Your task to perform on an android device: Open sound settings Image 0: 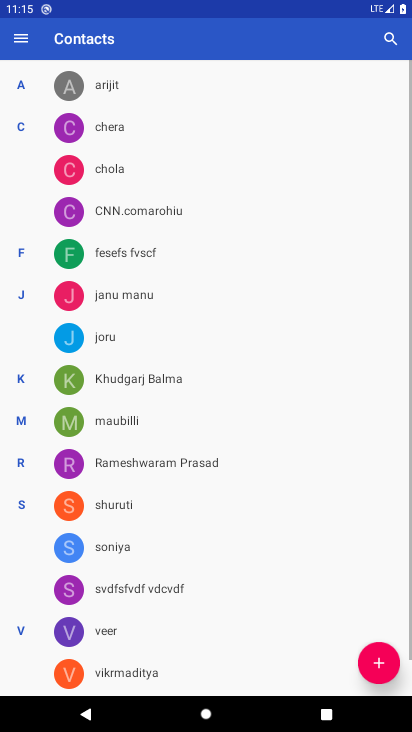
Step 0: drag from (223, 605) to (305, 293)
Your task to perform on an android device: Open sound settings Image 1: 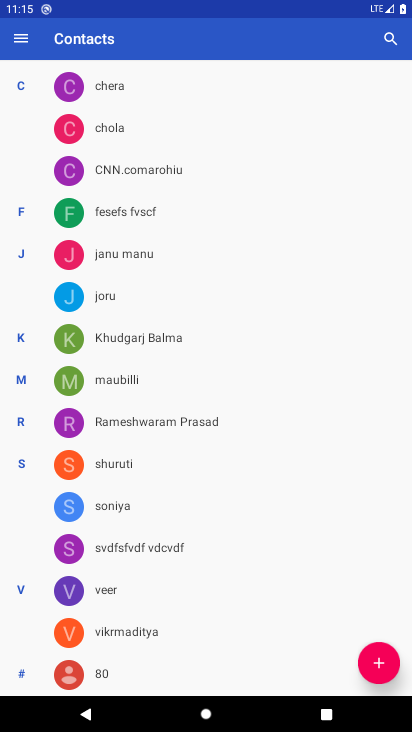
Step 1: press home button
Your task to perform on an android device: Open sound settings Image 2: 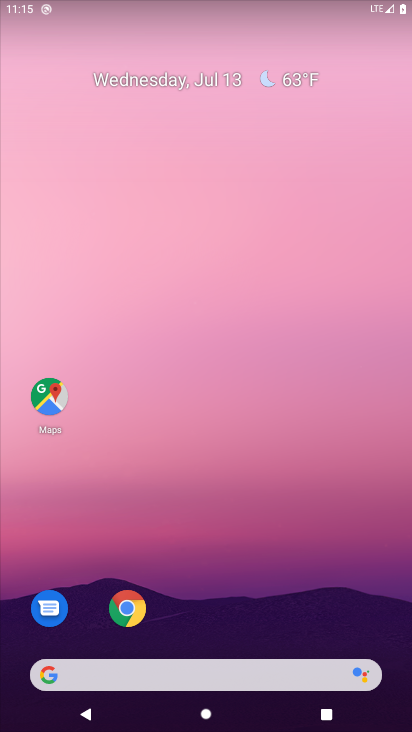
Step 2: drag from (245, 553) to (337, 87)
Your task to perform on an android device: Open sound settings Image 3: 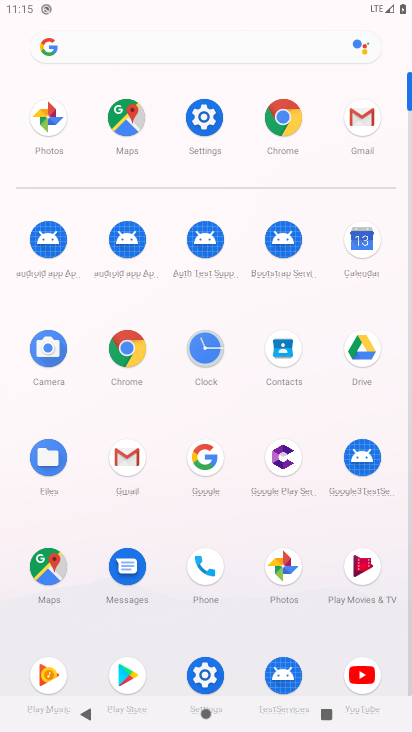
Step 3: click (206, 121)
Your task to perform on an android device: Open sound settings Image 4: 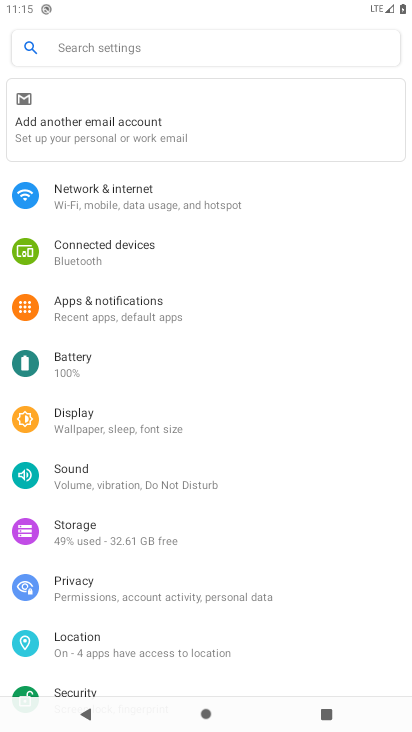
Step 4: click (67, 481)
Your task to perform on an android device: Open sound settings Image 5: 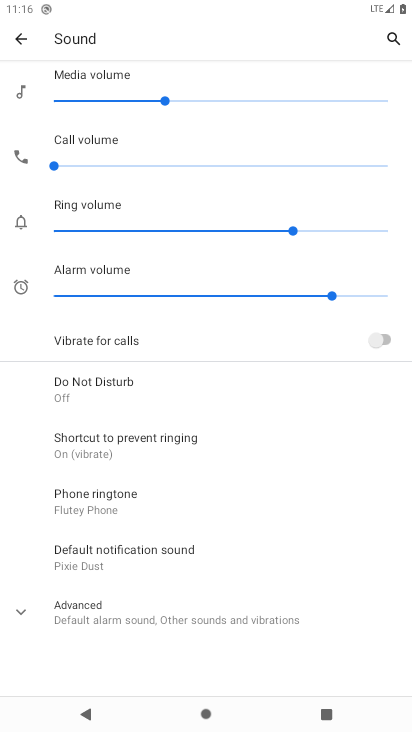
Step 5: task complete